Your task to perform on an android device: open app "Pluto TV - Live TV and Movies" (install if not already installed) Image 0: 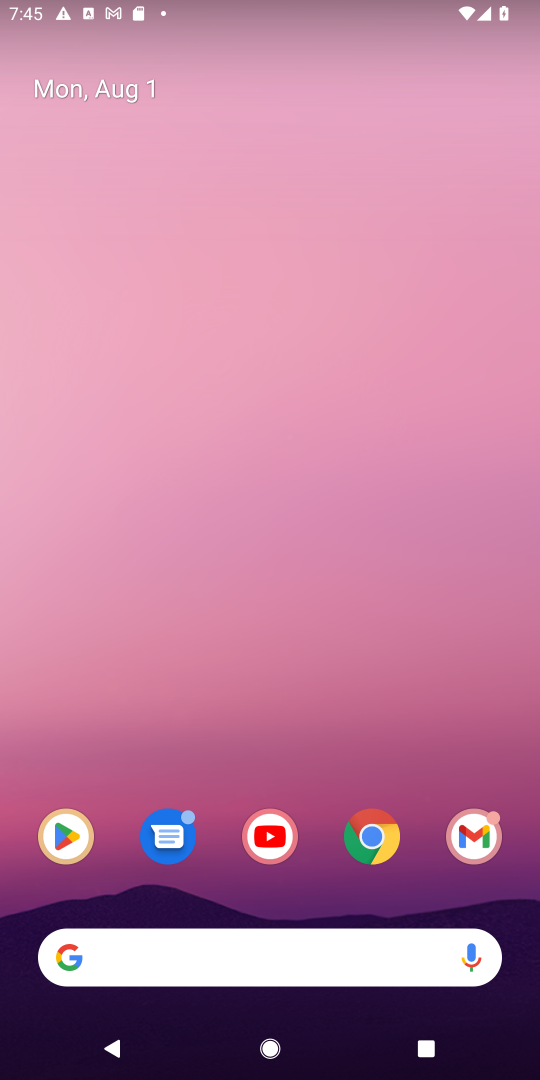
Step 0: press home button
Your task to perform on an android device: open app "Pluto TV - Live TV and Movies" (install if not already installed) Image 1: 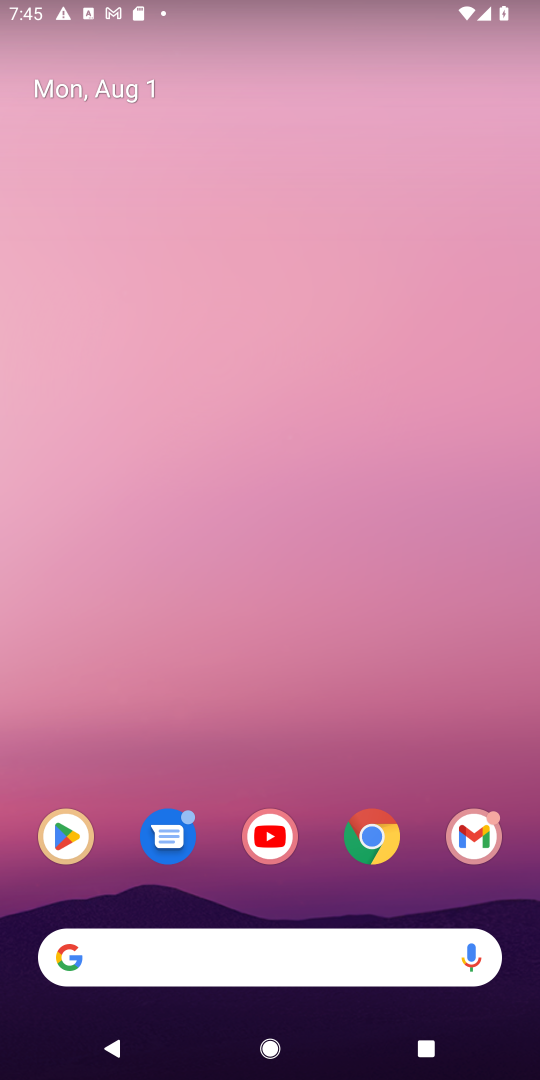
Step 1: click (67, 840)
Your task to perform on an android device: open app "Pluto TV - Live TV and Movies" (install if not already installed) Image 2: 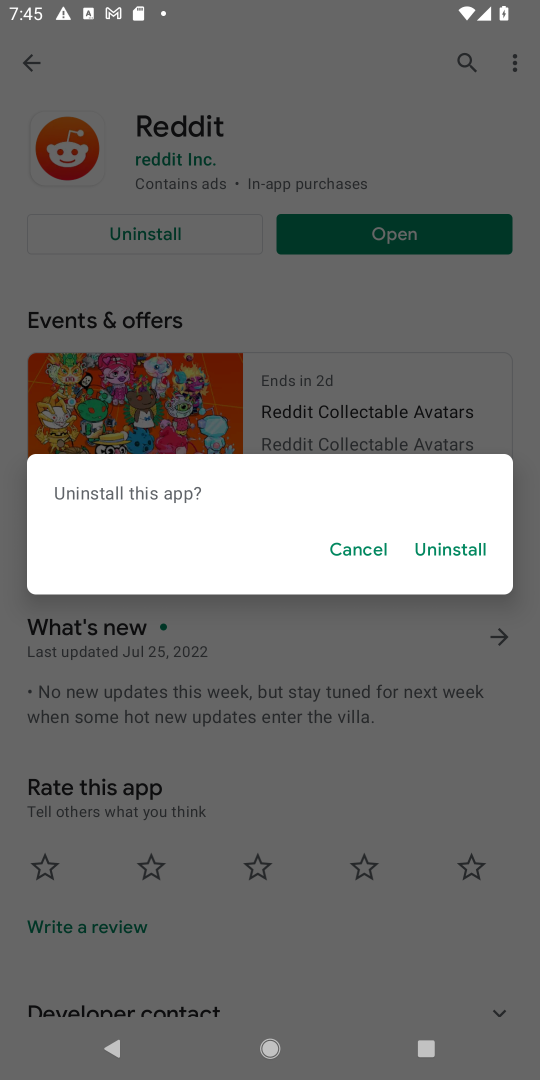
Step 2: click (346, 553)
Your task to perform on an android device: open app "Pluto TV - Live TV and Movies" (install if not already installed) Image 3: 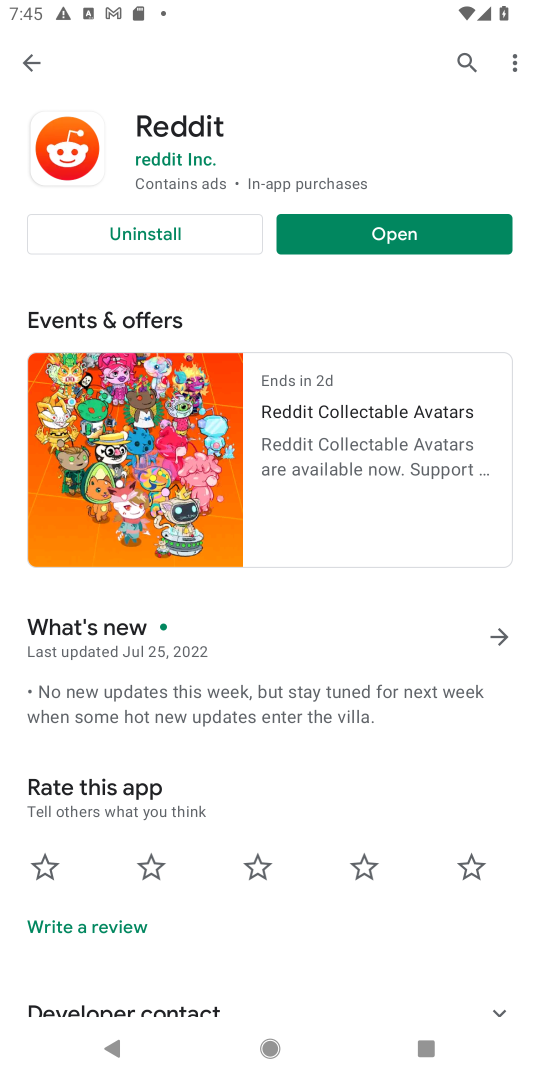
Step 3: click (466, 55)
Your task to perform on an android device: open app "Pluto TV - Live TV and Movies" (install if not already installed) Image 4: 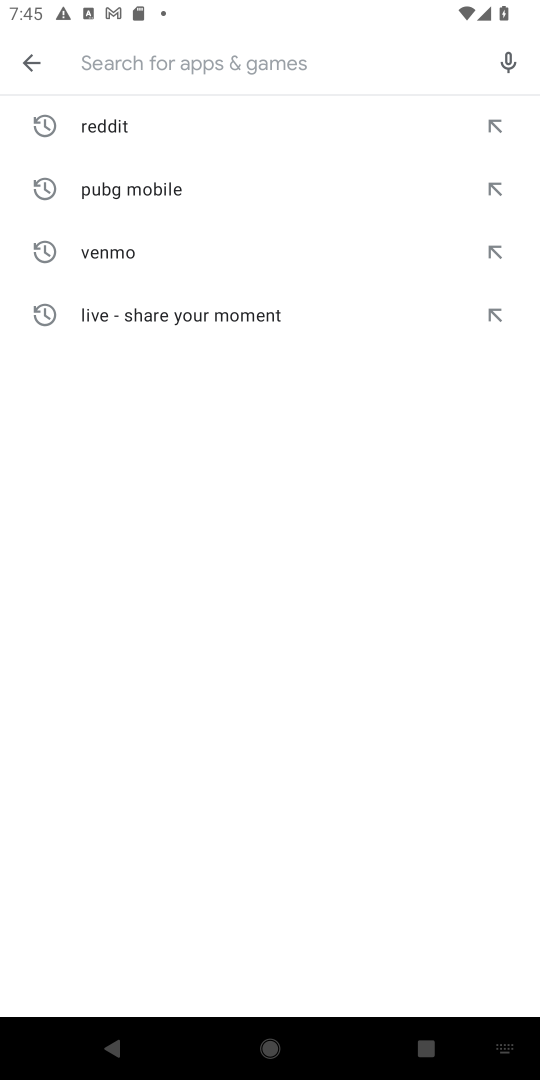
Step 4: type "Pluto TV - Live TV and Movies"
Your task to perform on an android device: open app "Pluto TV - Live TV and Movies" (install if not already installed) Image 5: 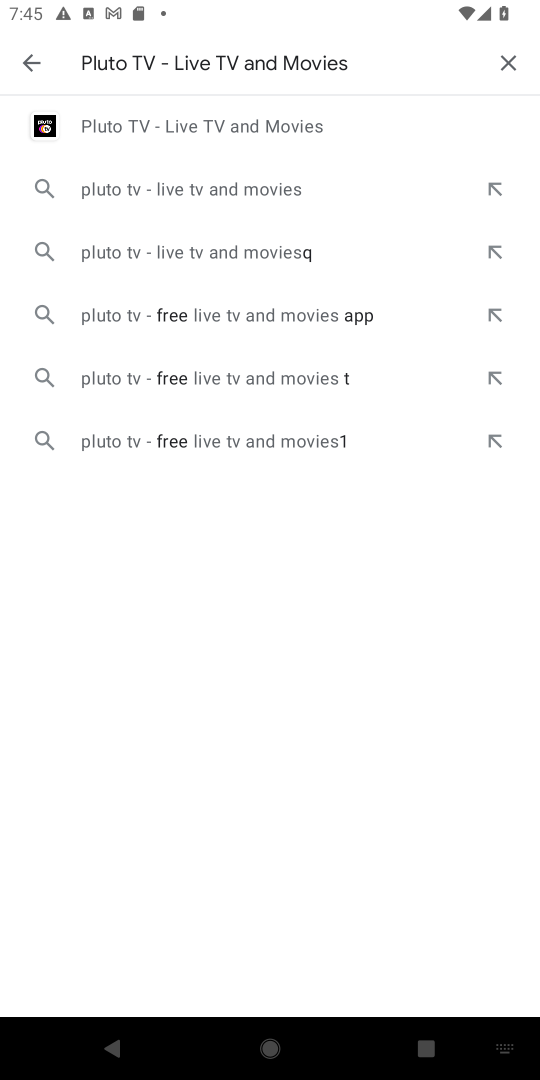
Step 5: click (282, 127)
Your task to perform on an android device: open app "Pluto TV - Live TV and Movies" (install if not already installed) Image 6: 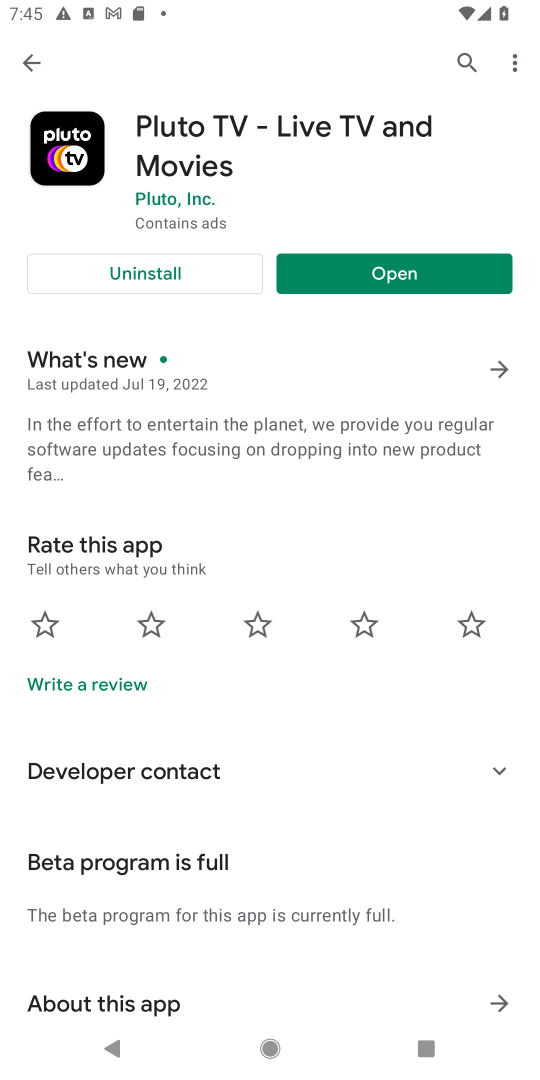
Step 6: click (397, 265)
Your task to perform on an android device: open app "Pluto TV - Live TV and Movies" (install if not already installed) Image 7: 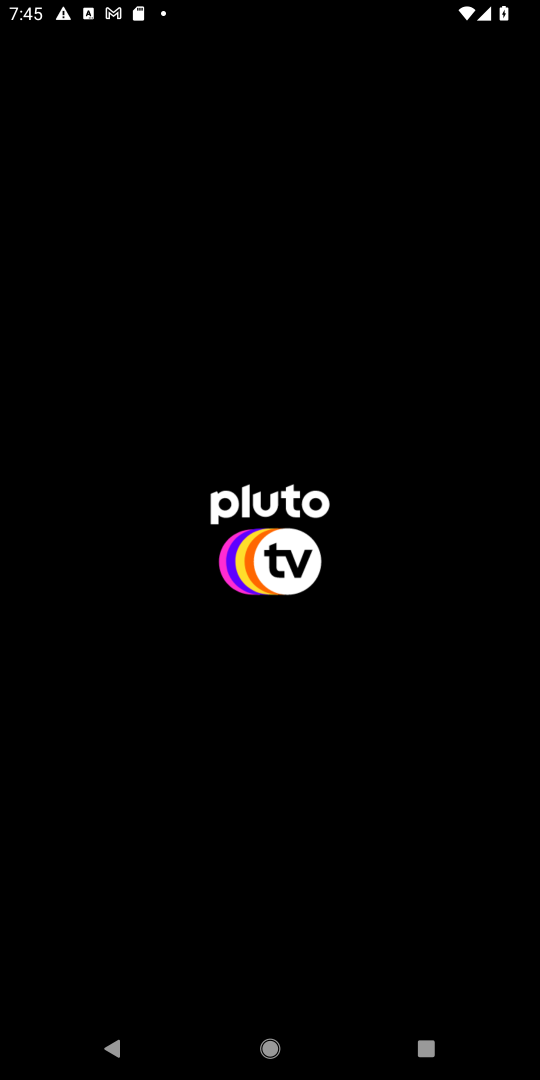
Step 7: task complete